Your task to perform on an android device: Go to internet settings Image 0: 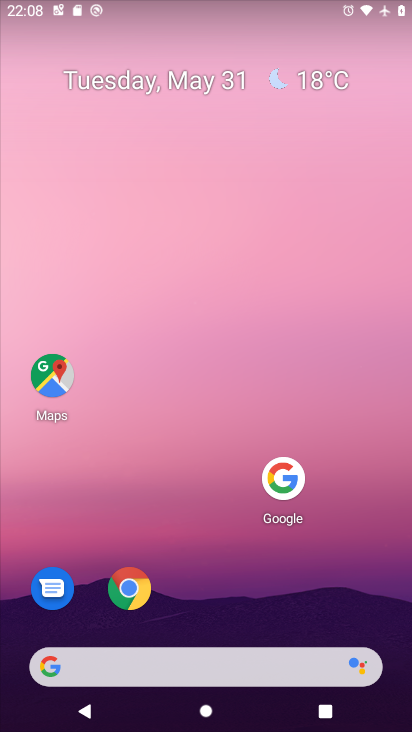
Step 0: press home button
Your task to perform on an android device: Go to internet settings Image 1: 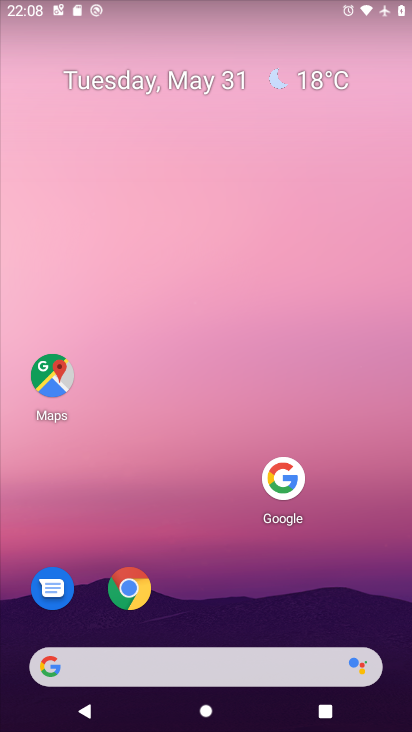
Step 1: drag from (145, 674) to (252, 38)
Your task to perform on an android device: Go to internet settings Image 2: 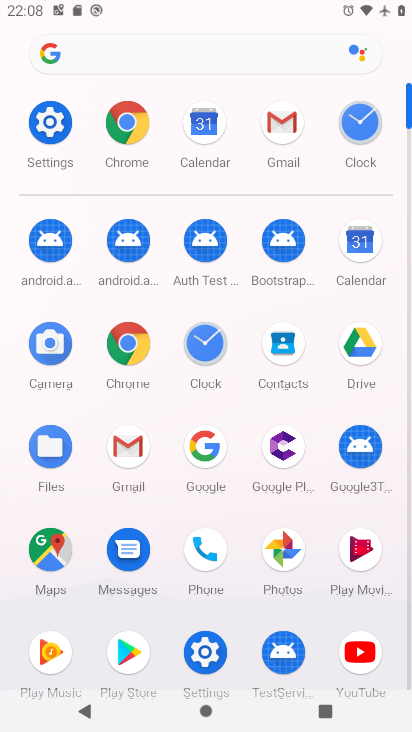
Step 2: click (45, 126)
Your task to perform on an android device: Go to internet settings Image 3: 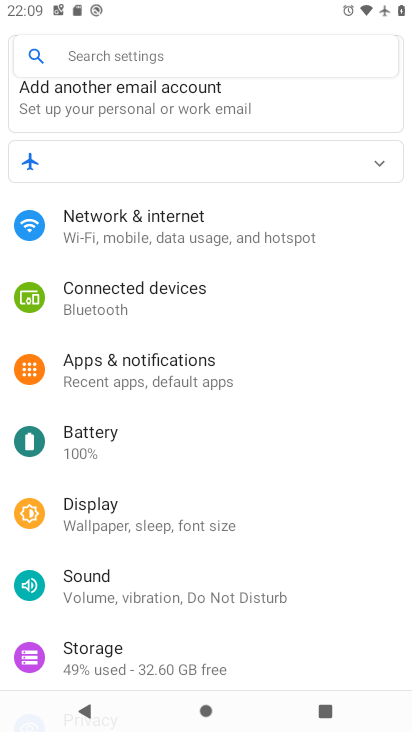
Step 3: click (150, 230)
Your task to perform on an android device: Go to internet settings Image 4: 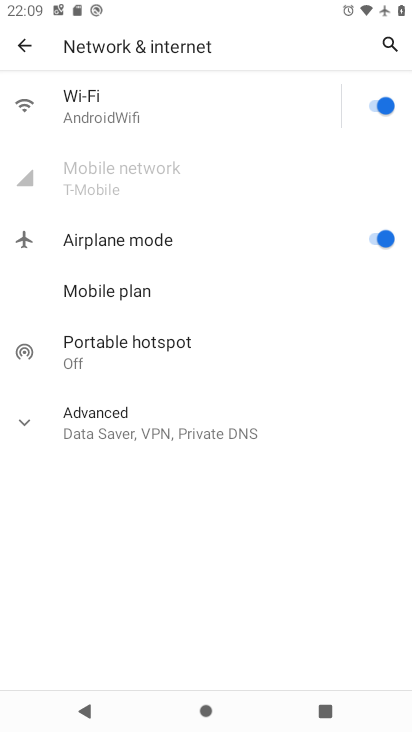
Step 4: task complete